Your task to perform on an android device: Open battery settings Image 0: 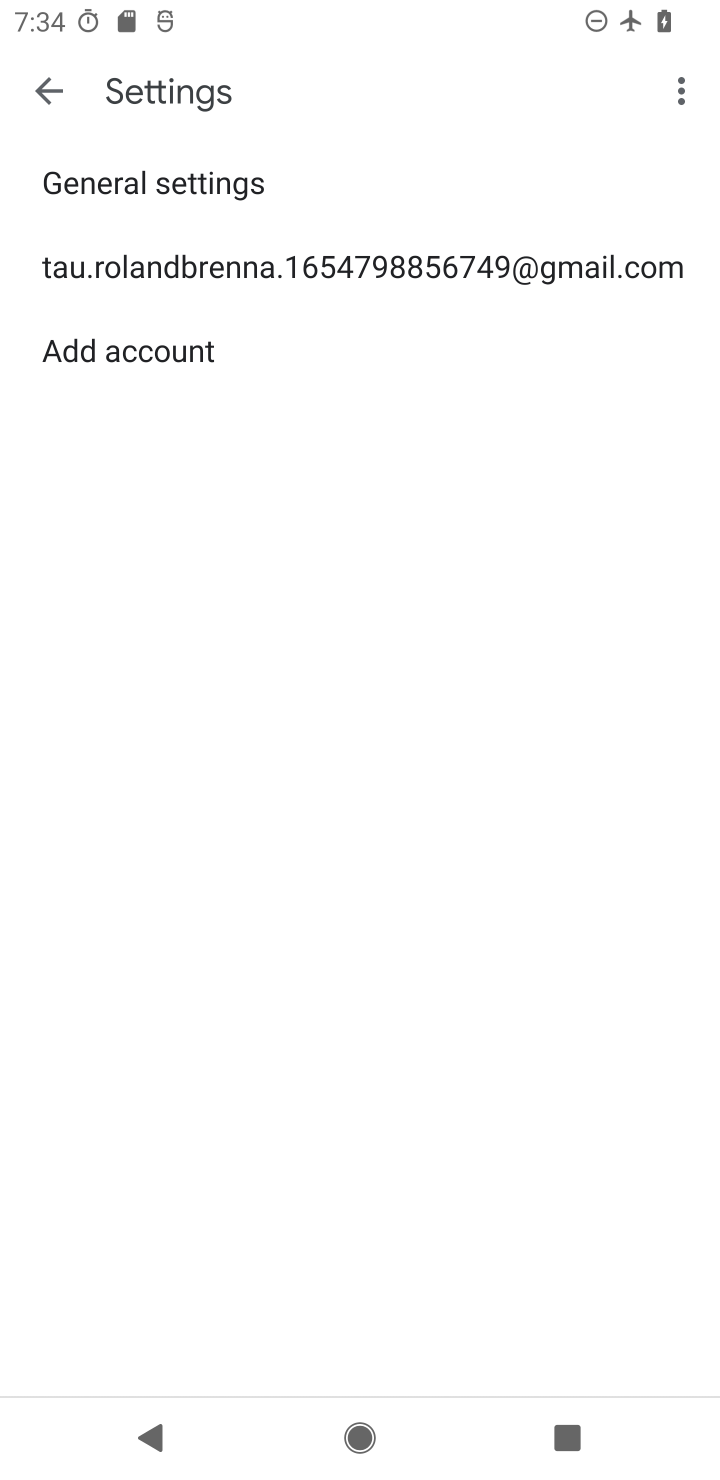
Step 0: press home button
Your task to perform on an android device: Open battery settings Image 1: 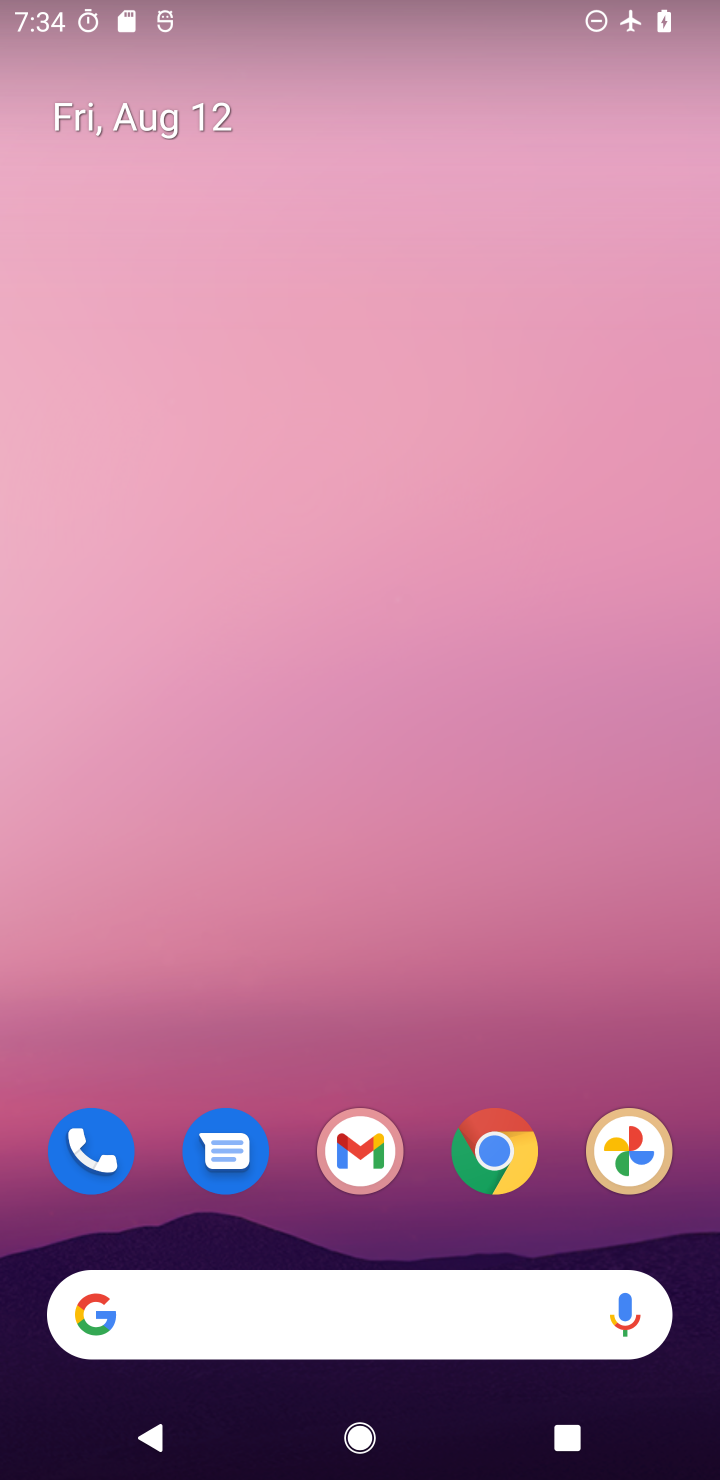
Step 1: drag from (461, 1029) to (352, 4)
Your task to perform on an android device: Open battery settings Image 2: 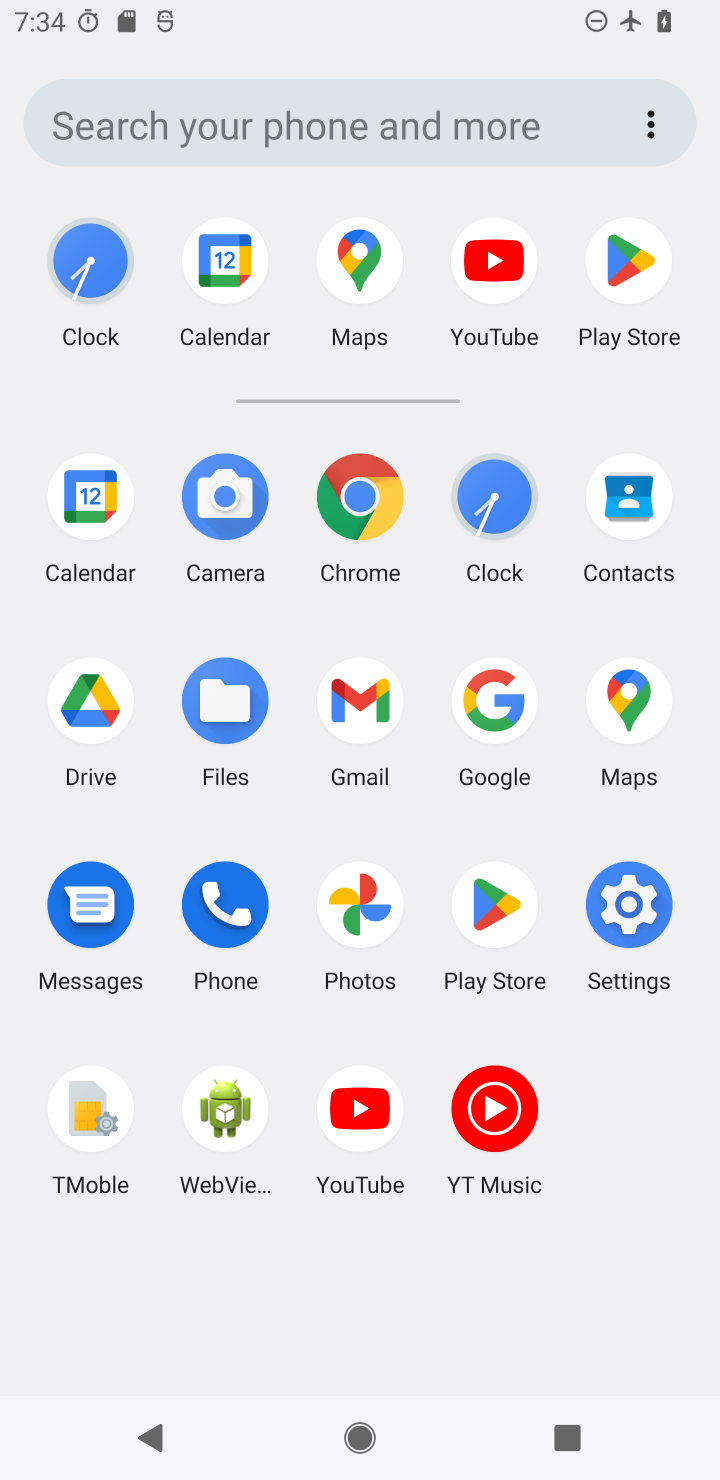
Step 2: click (629, 893)
Your task to perform on an android device: Open battery settings Image 3: 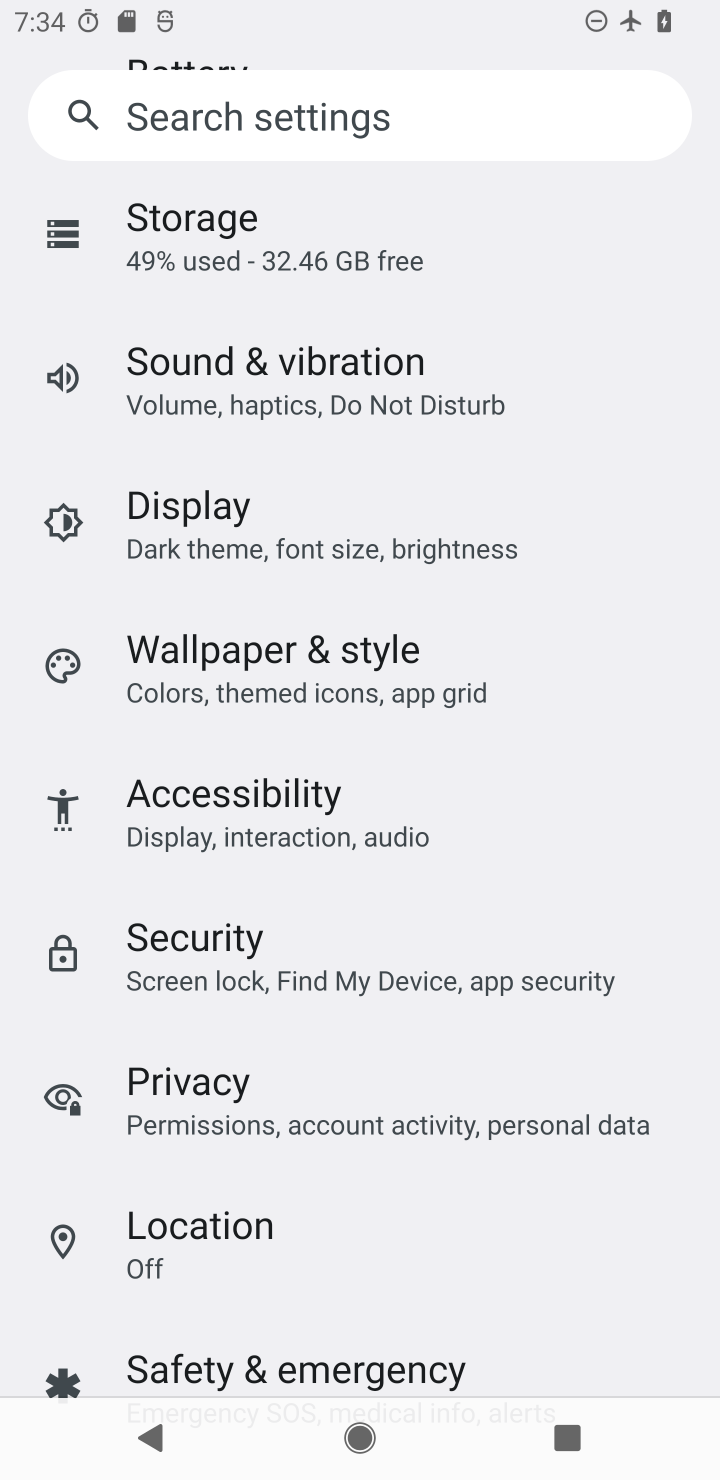
Step 3: drag from (452, 1162) to (562, 105)
Your task to perform on an android device: Open battery settings Image 4: 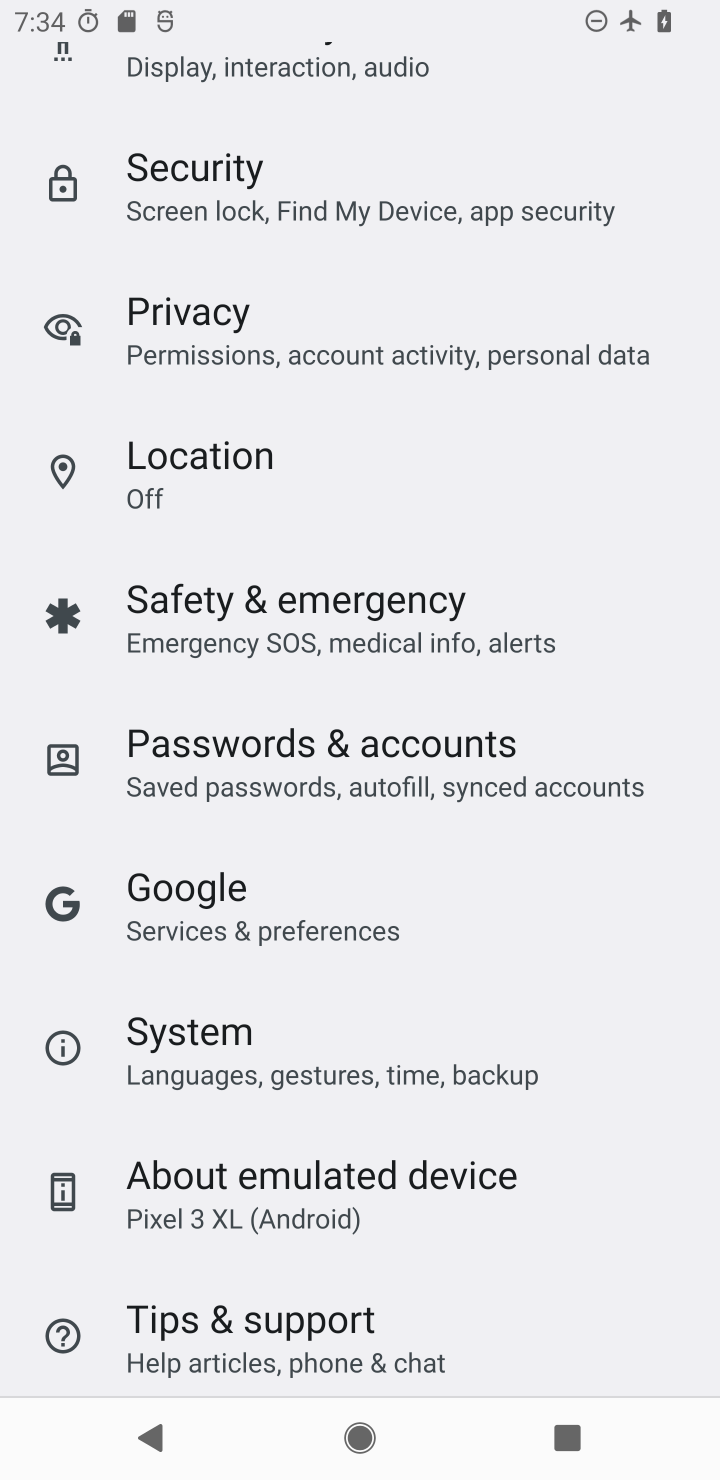
Step 4: drag from (573, 414) to (519, 1294)
Your task to perform on an android device: Open battery settings Image 5: 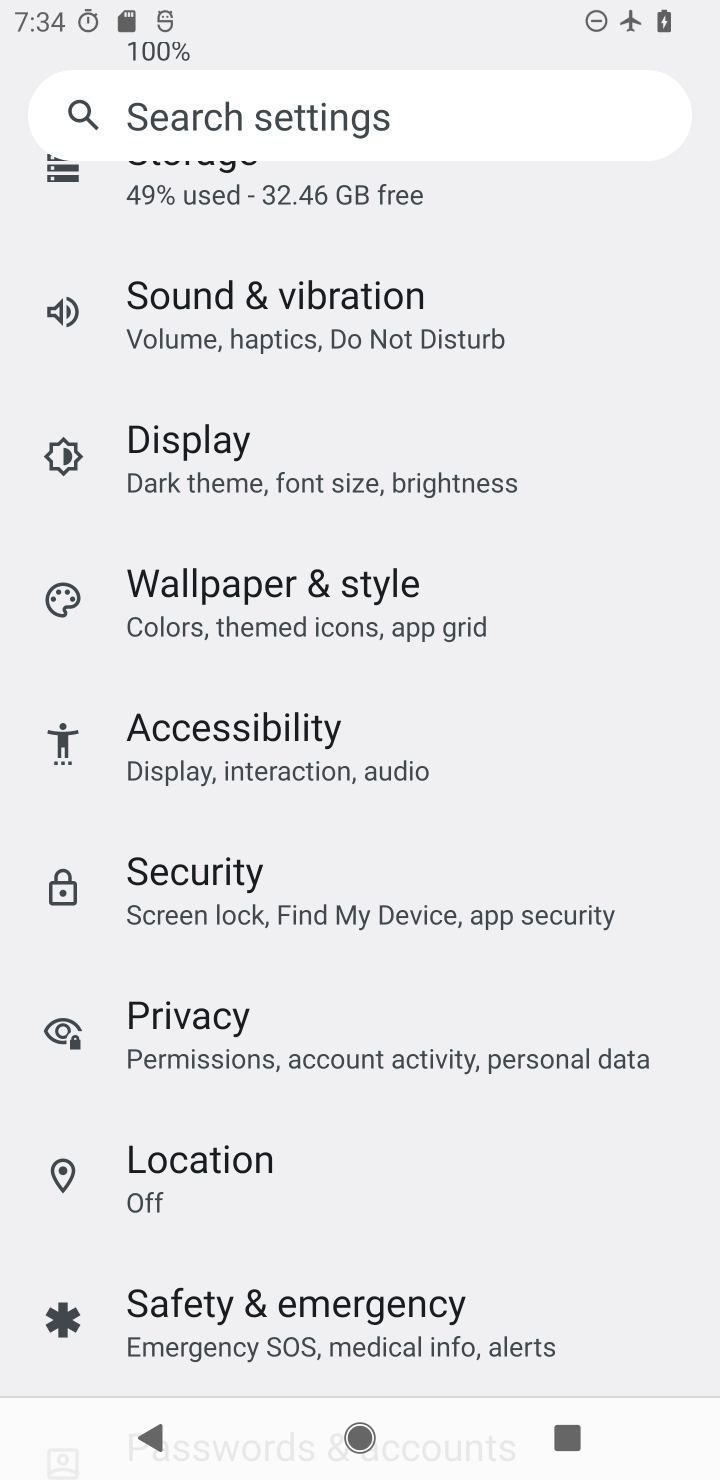
Step 5: drag from (633, 322) to (606, 1114)
Your task to perform on an android device: Open battery settings Image 6: 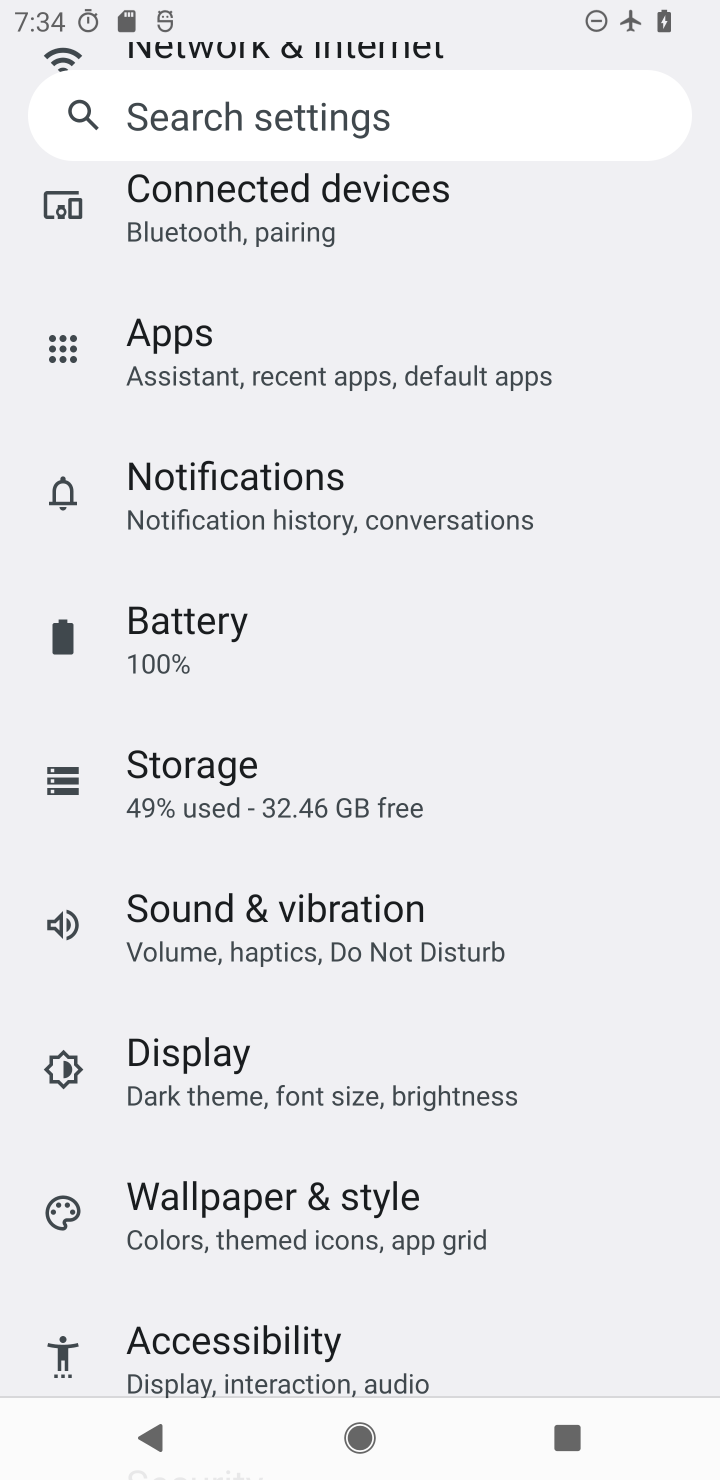
Step 6: click (221, 660)
Your task to perform on an android device: Open battery settings Image 7: 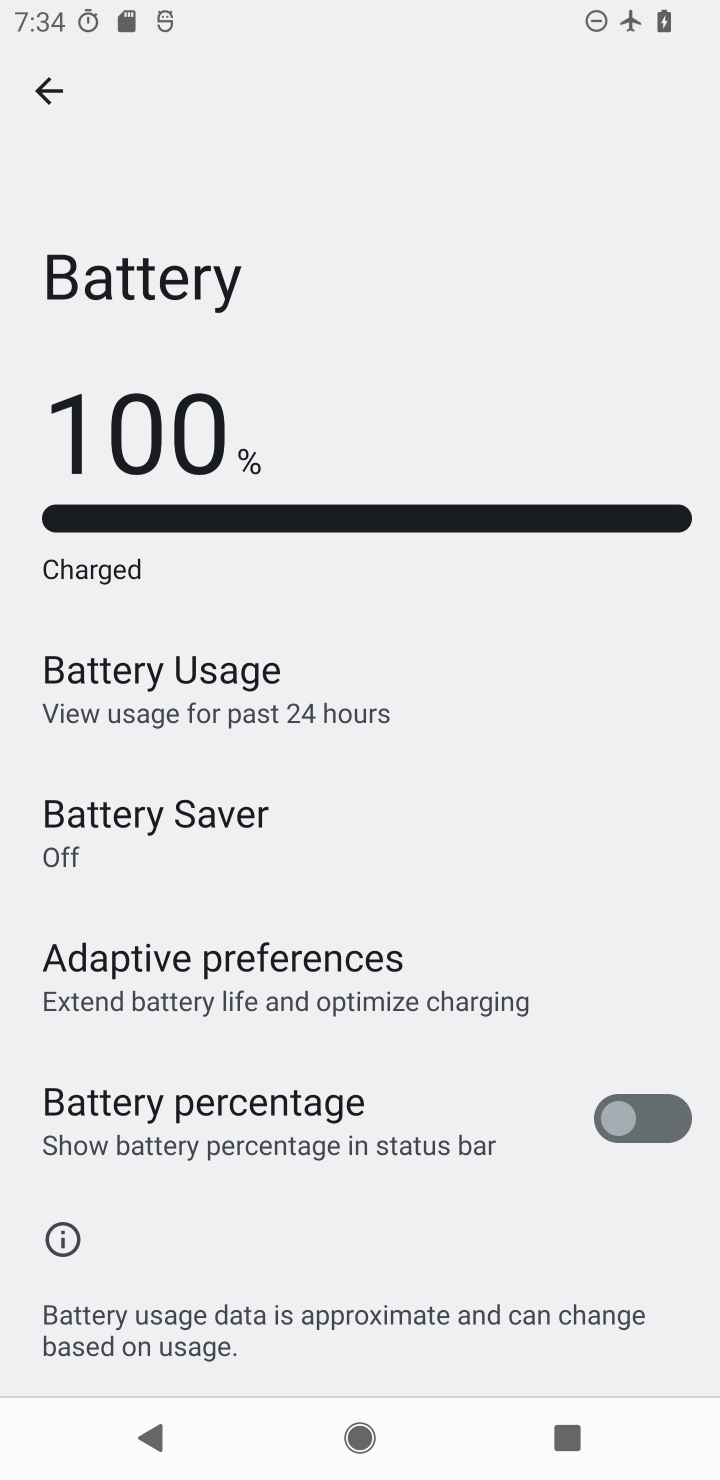
Step 7: task complete